Your task to perform on an android device: See recent photos Image 0: 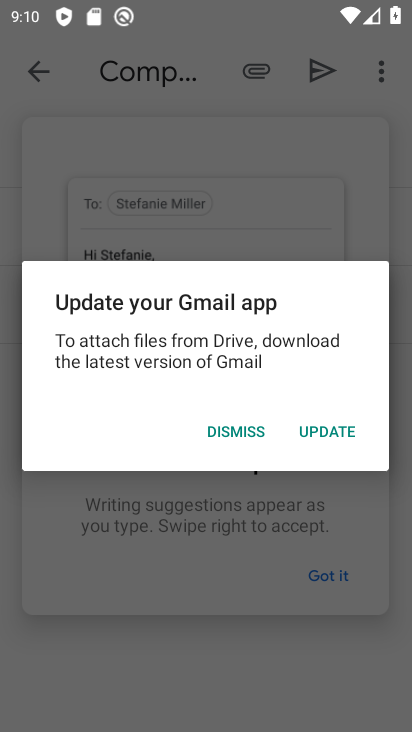
Step 0: press home button
Your task to perform on an android device: See recent photos Image 1: 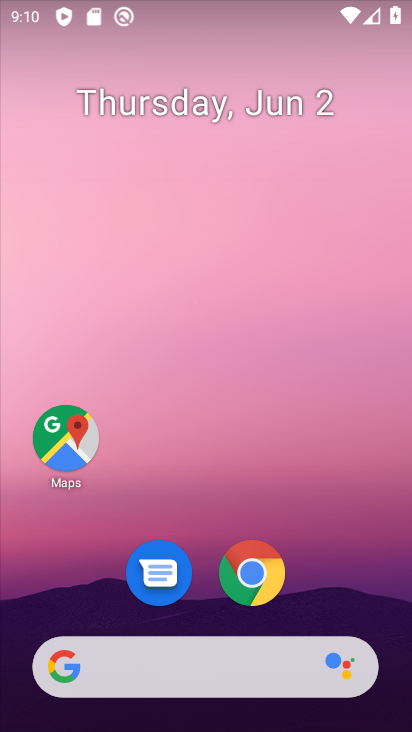
Step 1: drag from (352, 539) to (270, 88)
Your task to perform on an android device: See recent photos Image 2: 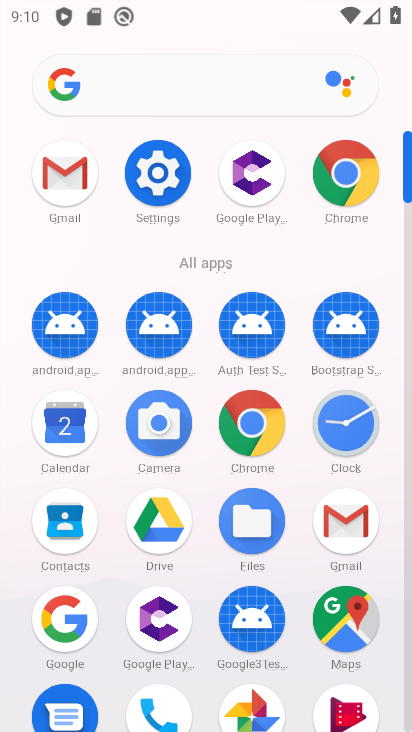
Step 2: click (257, 705)
Your task to perform on an android device: See recent photos Image 3: 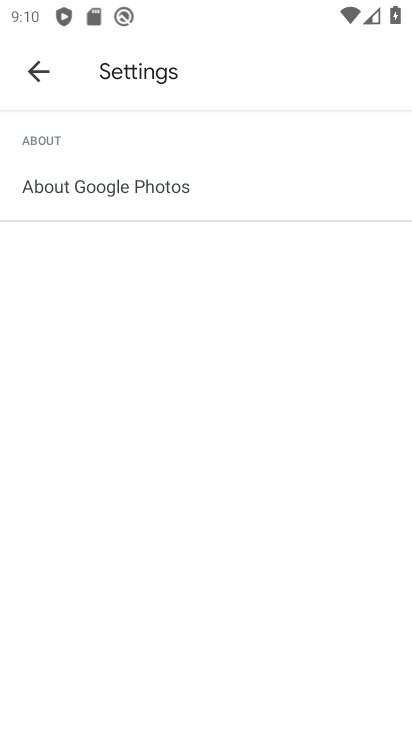
Step 3: click (41, 78)
Your task to perform on an android device: See recent photos Image 4: 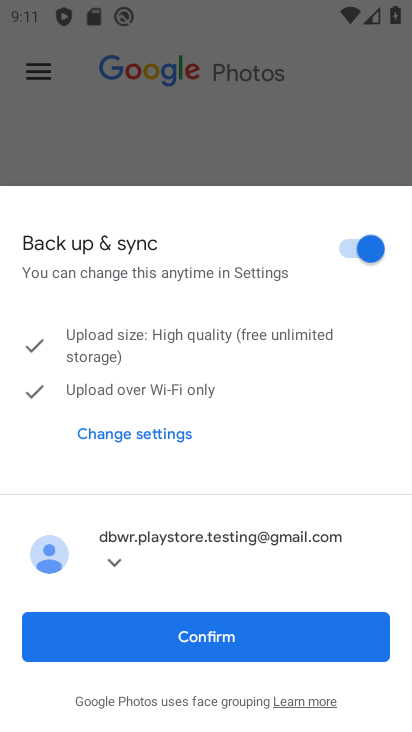
Step 4: click (239, 645)
Your task to perform on an android device: See recent photos Image 5: 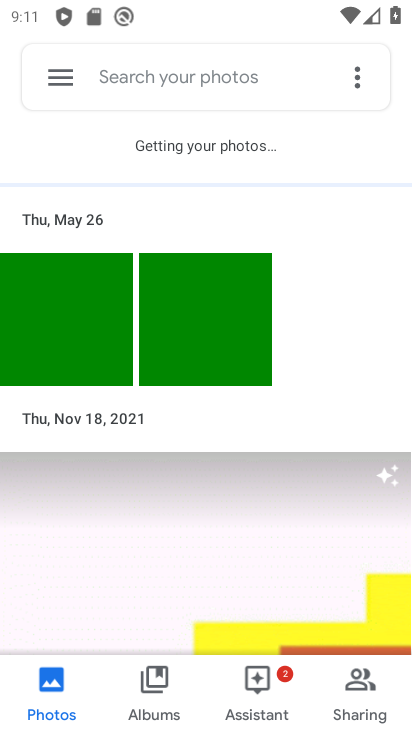
Step 5: task complete